Your task to perform on an android device: Open settings Image 0: 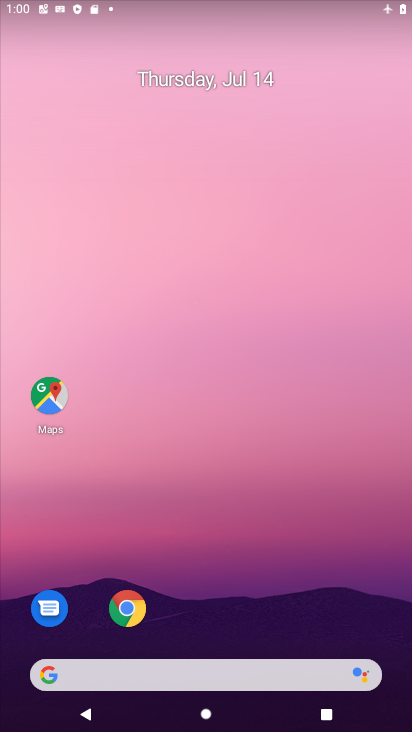
Step 0: drag from (396, 653) to (374, 17)
Your task to perform on an android device: Open settings Image 1: 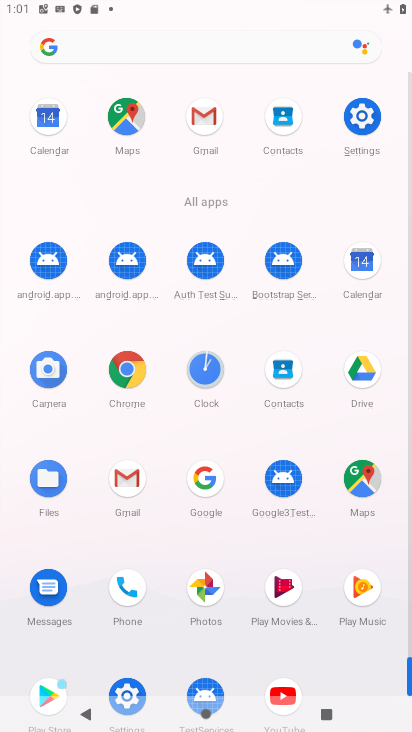
Step 1: click (410, 646)
Your task to perform on an android device: Open settings Image 2: 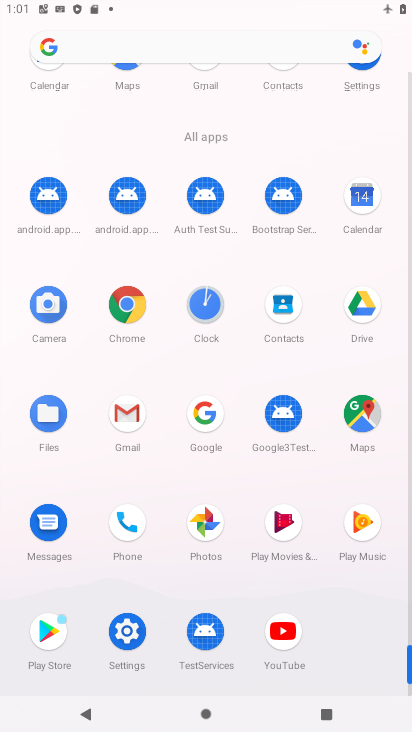
Step 2: click (130, 632)
Your task to perform on an android device: Open settings Image 3: 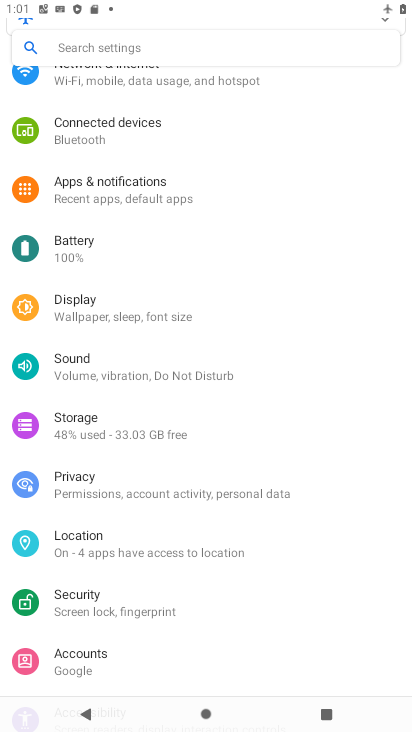
Step 3: task complete